Your task to perform on an android device: Go to wifi settings Image 0: 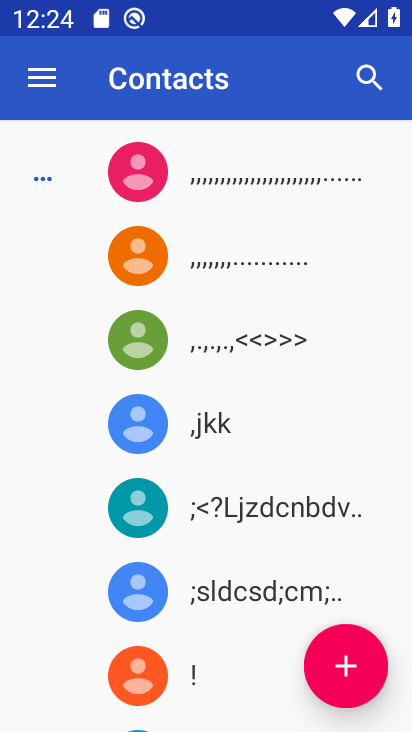
Step 0: press home button
Your task to perform on an android device: Go to wifi settings Image 1: 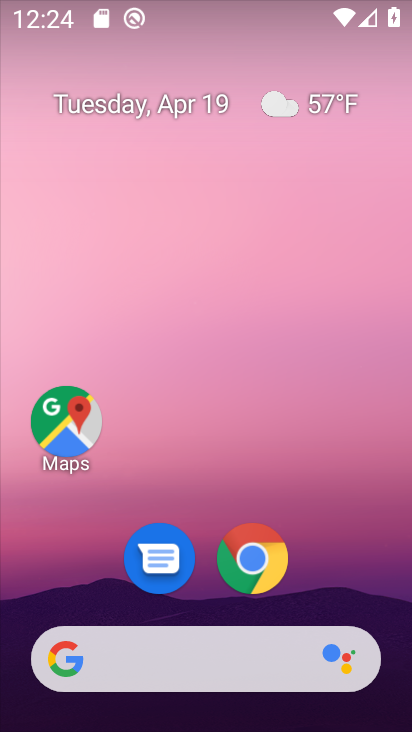
Step 1: drag from (280, 400) to (215, 156)
Your task to perform on an android device: Go to wifi settings Image 2: 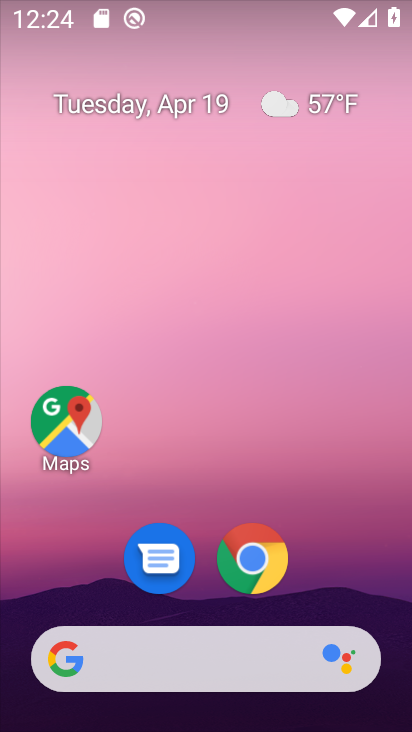
Step 2: drag from (342, 596) to (345, 71)
Your task to perform on an android device: Go to wifi settings Image 3: 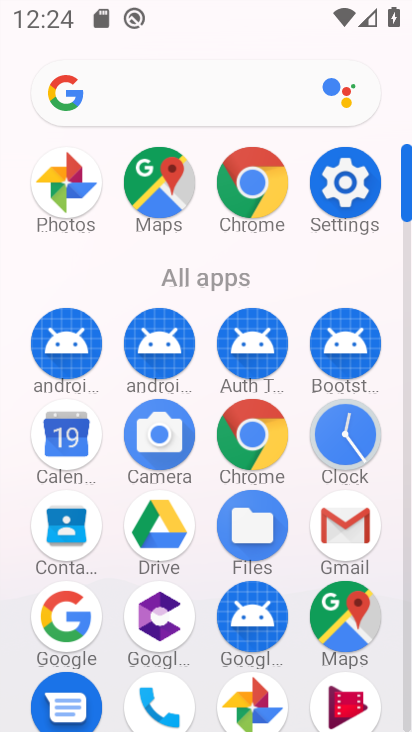
Step 3: click (347, 174)
Your task to perform on an android device: Go to wifi settings Image 4: 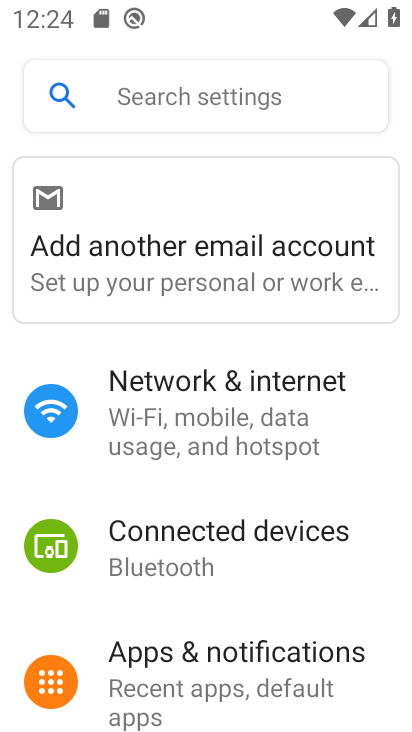
Step 4: click (58, 420)
Your task to perform on an android device: Go to wifi settings Image 5: 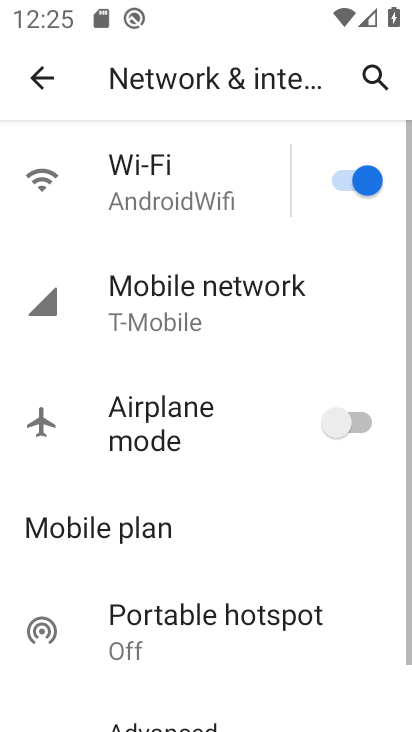
Step 5: click (104, 176)
Your task to perform on an android device: Go to wifi settings Image 6: 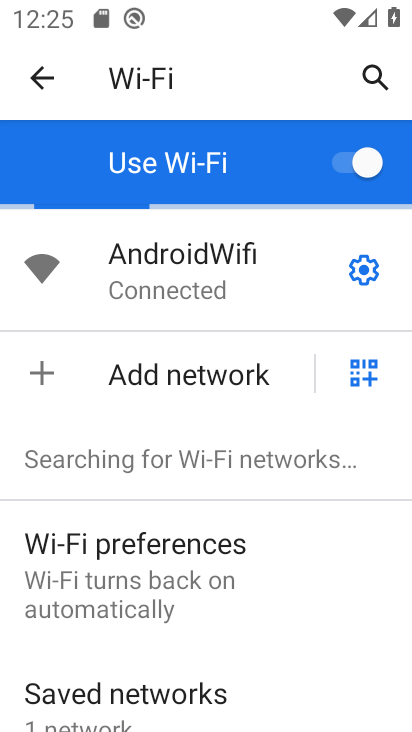
Step 6: task complete